Your task to perform on an android device: Search for Italian restaurants on Maps Image 0: 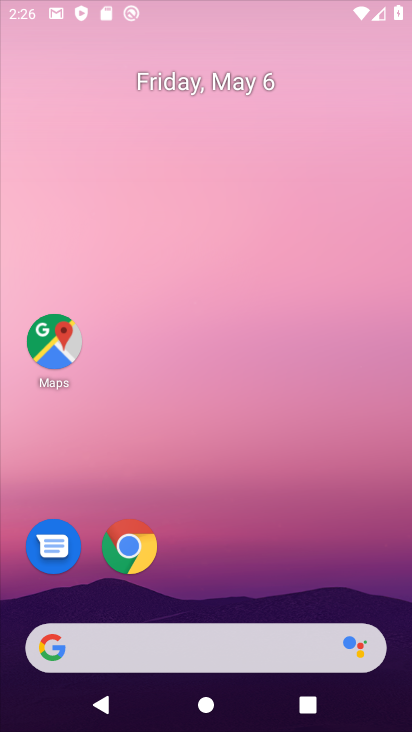
Step 0: drag from (241, 496) to (249, 718)
Your task to perform on an android device: Search for Italian restaurants on Maps Image 1: 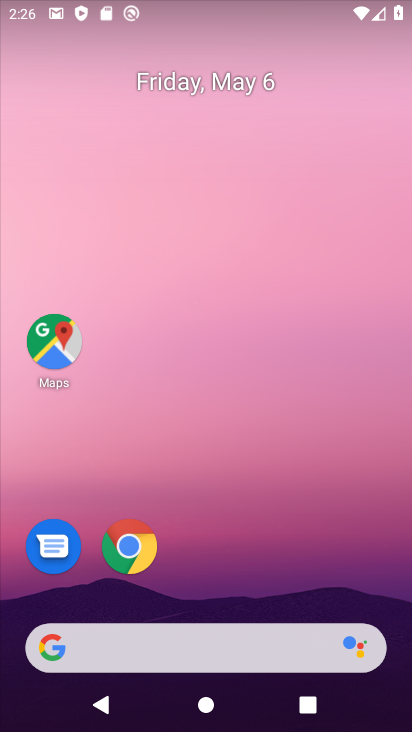
Step 1: click (51, 332)
Your task to perform on an android device: Search for Italian restaurants on Maps Image 2: 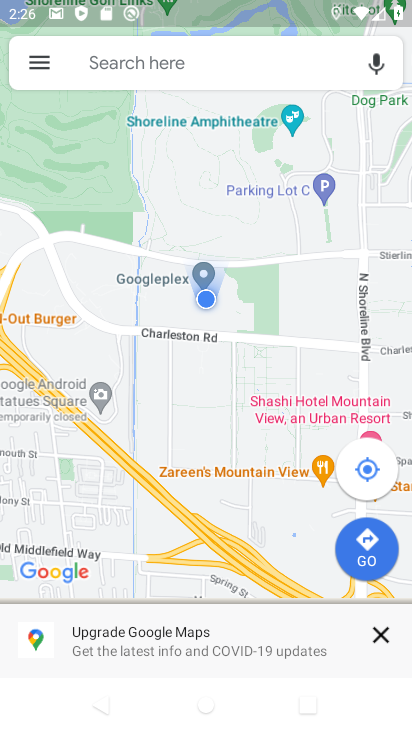
Step 2: click (250, 75)
Your task to perform on an android device: Search for Italian restaurants on Maps Image 3: 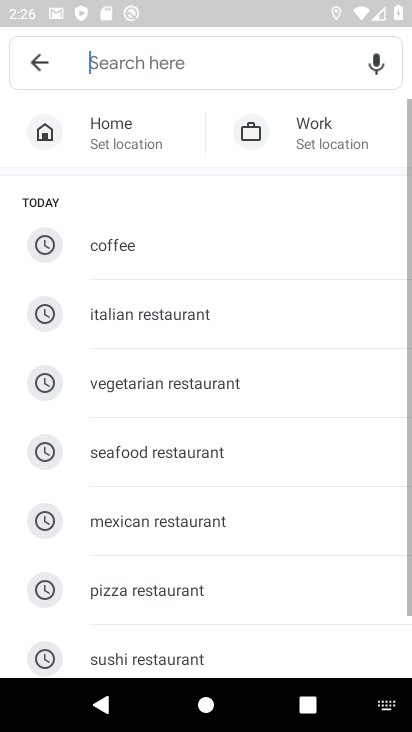
Step 3: click (165, 322)
Your task to perform on an android device: Search for Italian restaurants on Maps Image 4: 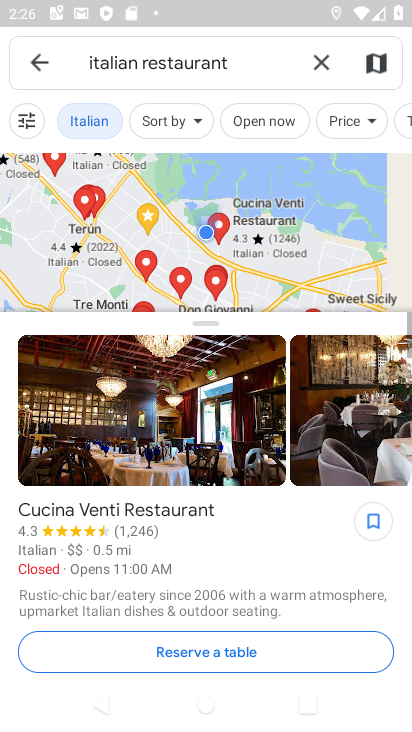
Step 4: task complete